Your task to perform on an android device: toggle wifi Image 0: 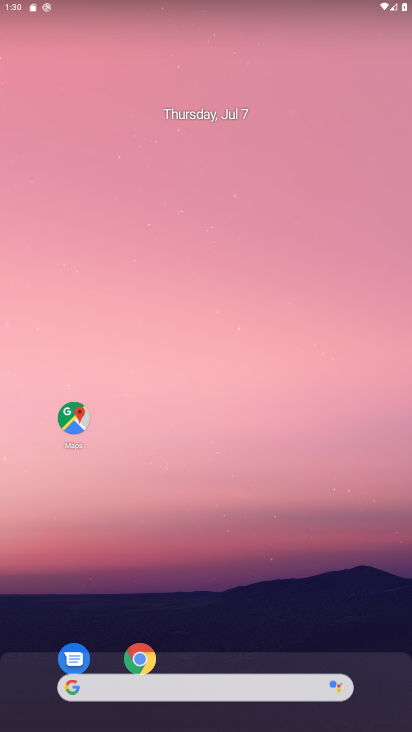
Step 0: drag from (211, 627) to (224, 60)
Your task to perform on an android device: toggle wifi Image 1: 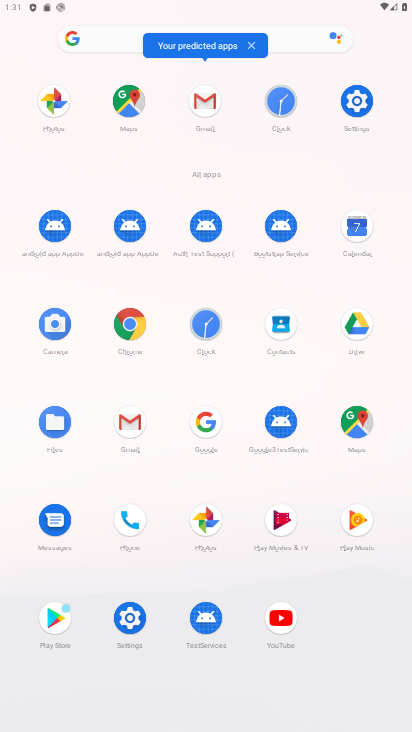
Step 1: click (355, 102)
Your task to perform on an android device: toggle wifi Image 2: 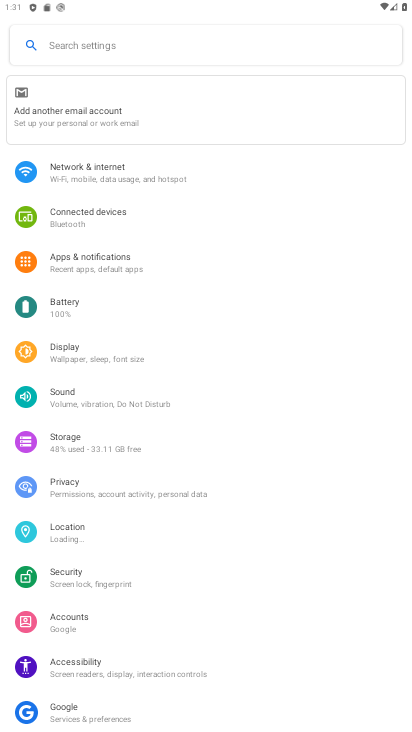
Step 2: click (115, 176)
Your task to perform on an android device: toggle wifi Image 3: 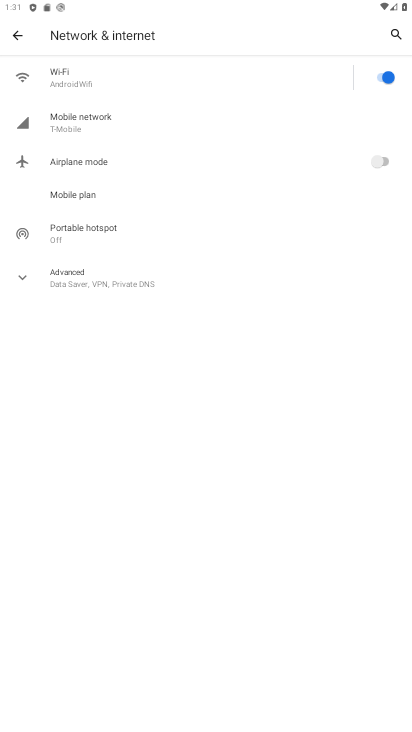
Step 3: click (391, 79)
Your task to perform on an android device: toggle wifi Image 4: 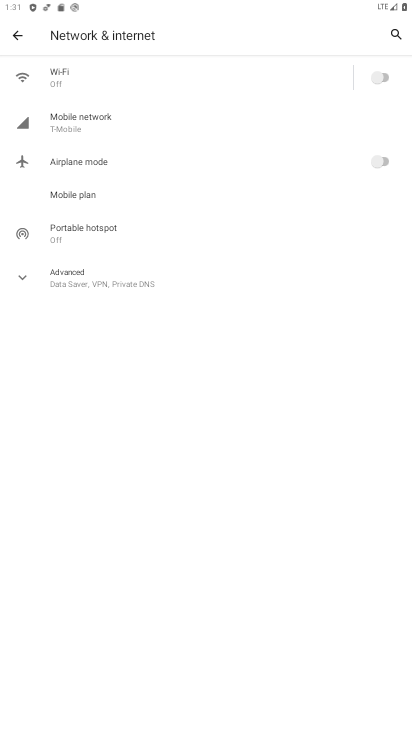
Step 4: task complete